Your task to perform on an android device: toggle pop-ups in chrome Image 0: 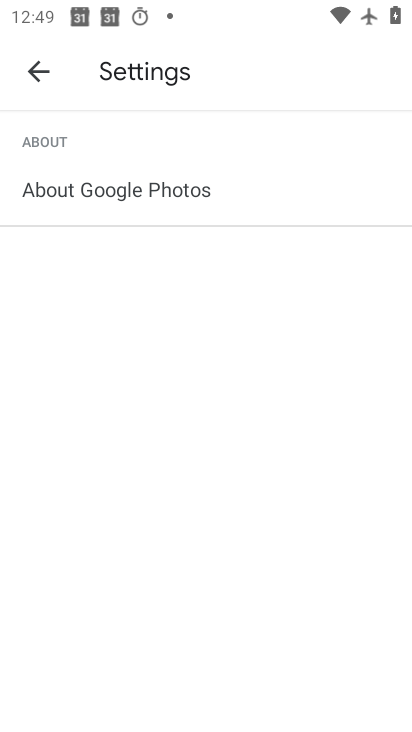
Step 0: press home button
Your task to perform on an android device: toggle pop-ups in chrome Image 1: 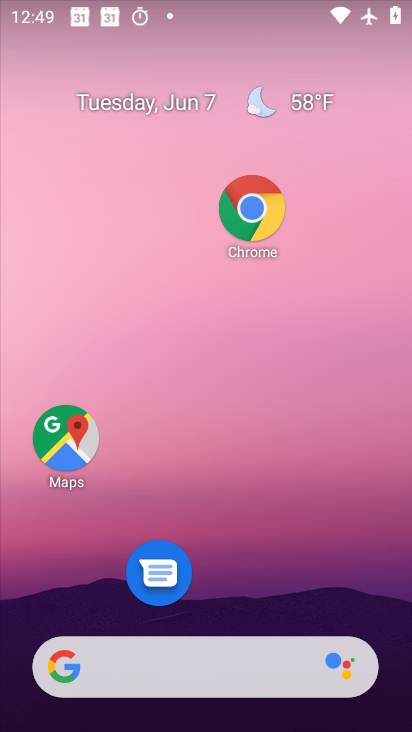
Step 1: click (277, 237)
Your task to perform on an android device: toggle pop-ups in chrome Image 2: 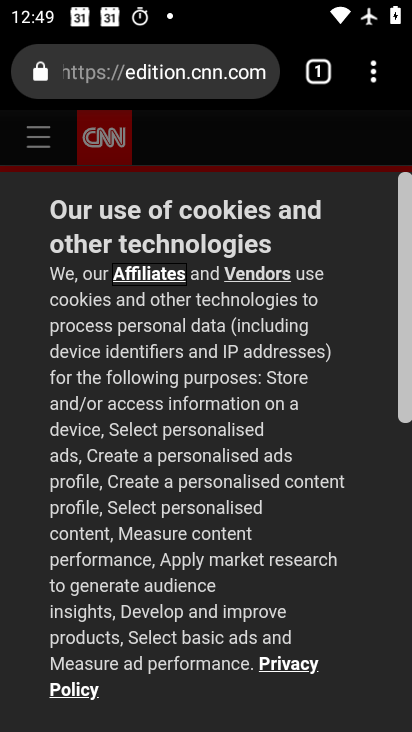
Step 2: click (377, 77)
Your task to perform on an android device: toggle pop-ups in chrome Image 3: 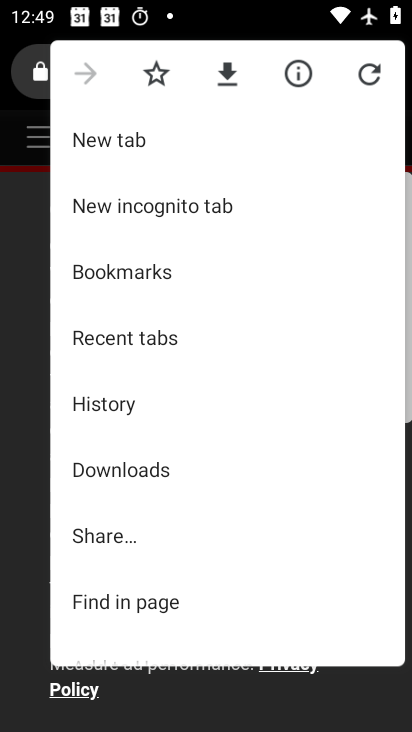
Step 3: drag from (289, 551) to (279, 285)
Your task to perform on an android device: toggle pop-ups in chrome Image 4: 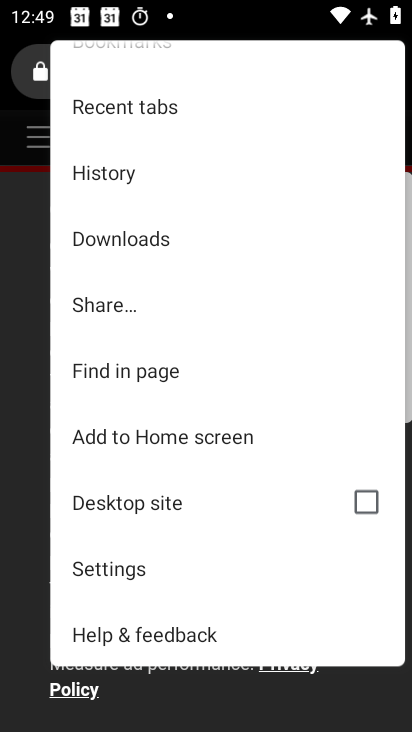
Step 4: drag from (149, 556) to (176, 370)
Your task to perform on an android device: toggle pop-ups in chrome Image 5: 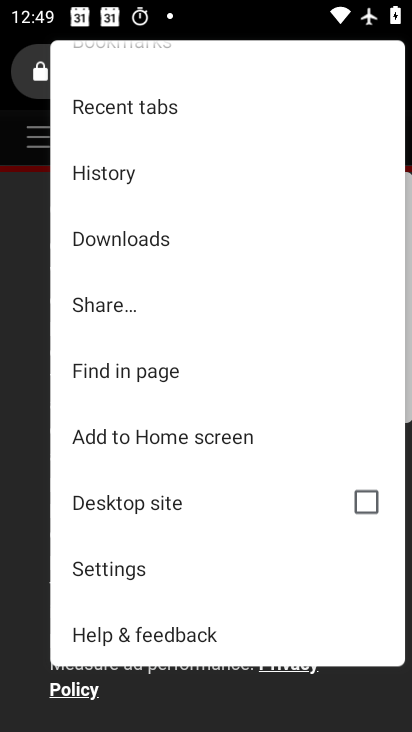
Step 5: click (148, 559)
Your task to perform on an android device: toggle pop-ups in chrome Image 6: 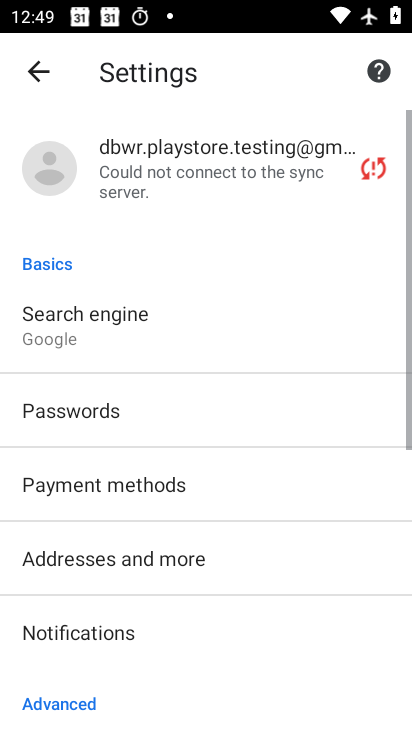
Step 6: drag from (198, 657) to (192, 326)
Your task to perform on an android device: toggle pop-ups in chrome Image 7: 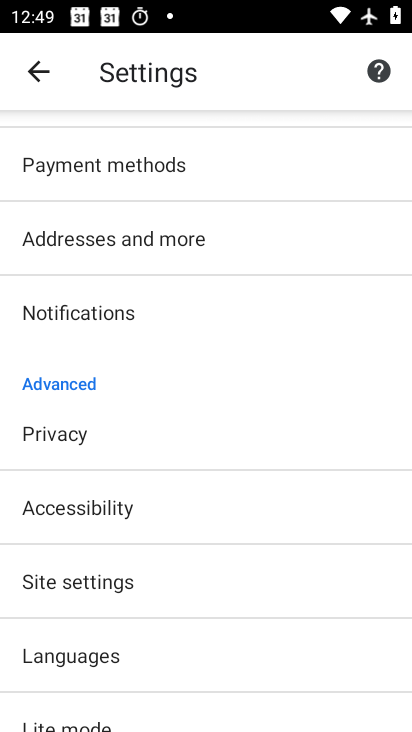
Step 7: drag from (157, 604) to (157, 320)
Your task to perform on an android device: toggle pop-ups in chrome Image 8: 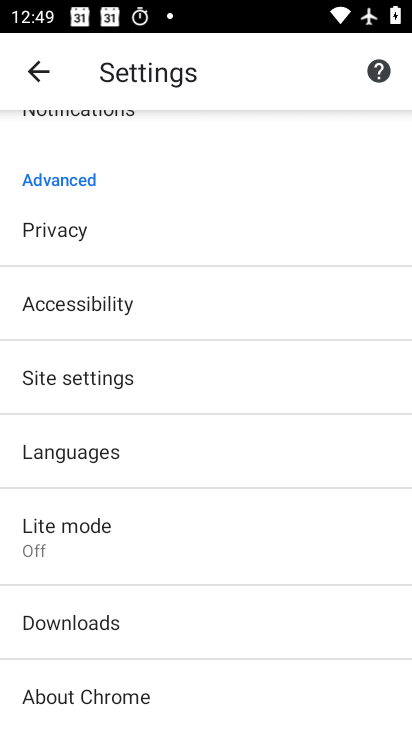
Step 8: click (150, 379)
Your task to perform on an android device: toggle pop-ups in chrome Image 9: 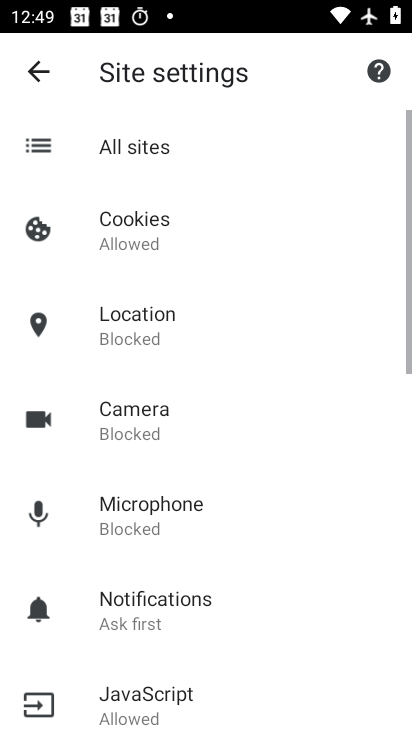
Step 9: drag from (181, 600) to (215, 364)
Your task to perform on an android device: toggle pop-ups in chrome Image 10: 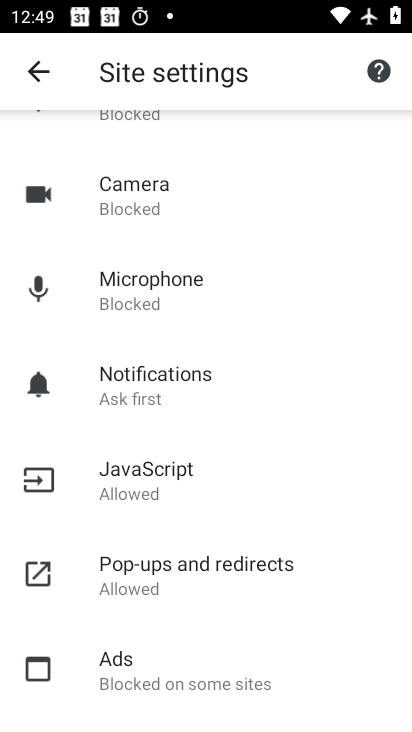
Step 10: click (196, 571)
Your task to perform on an android device: toggle pop-ups in chrome Image 11: 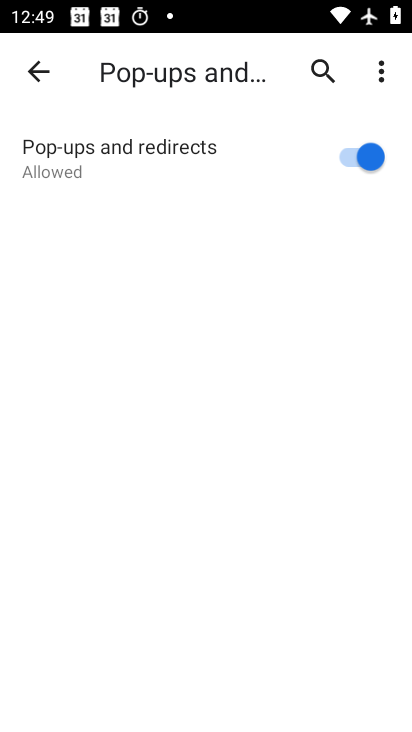
Step 11: click (349, 173)
Your task to perform on an android device: toggle pop-ups in chrome Image 12: 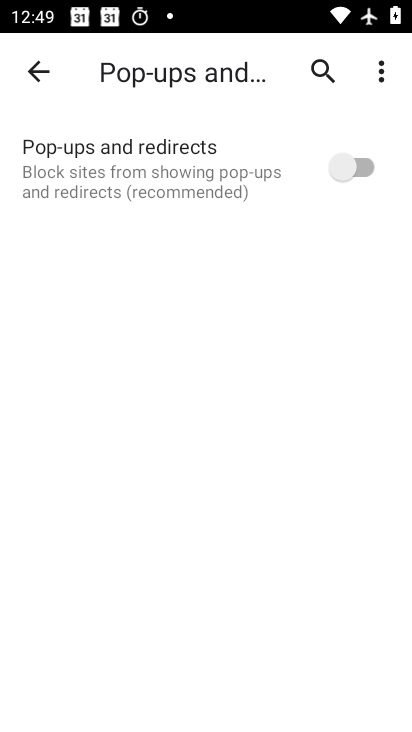
Step 12: task complete